Your task to perform on an android device: Search for seafood restaurants on Google Maps Image 0: 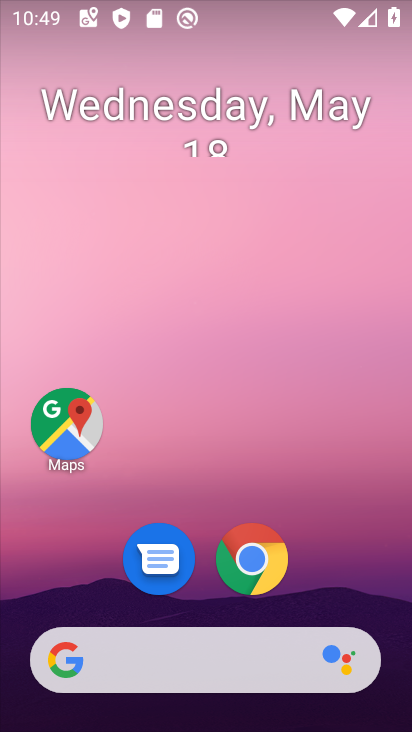
Step 0: click (63, 420)
Your task to perform on an android device: Search for seafood restaurants on Google Maps Image 1: 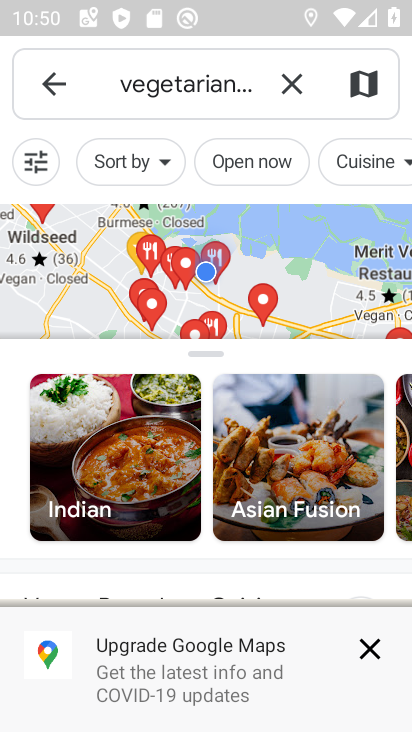
Step 1: click (302, 90)
Your task to perform on an android device: Search for seafood restaurants on Google Maps Image 2: 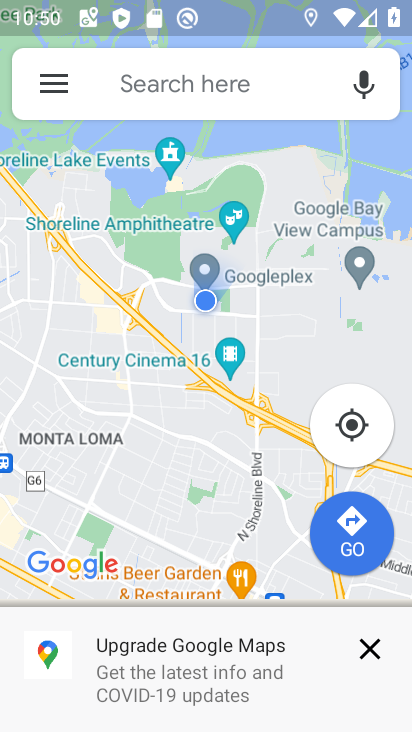
Step 2: click (178, 76)
Your task to perform on an android device: Search for seafood restaurants on Google Maps Image 3: 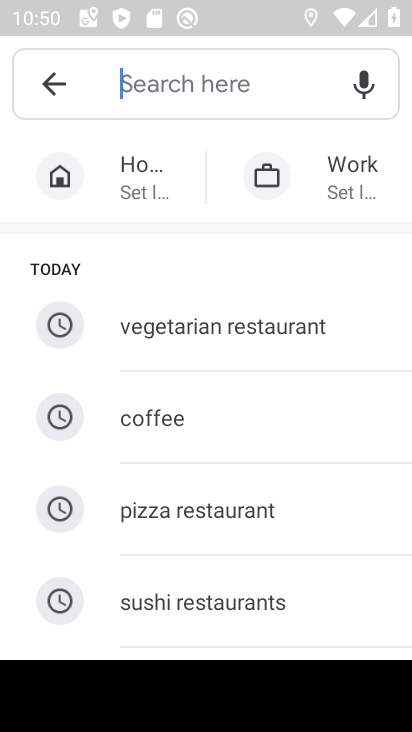
Step 3: drag from (158, 626) to (235, 202)
Your task to perform on an android device: Search for seafood restaurants on Google Maps Image 4: 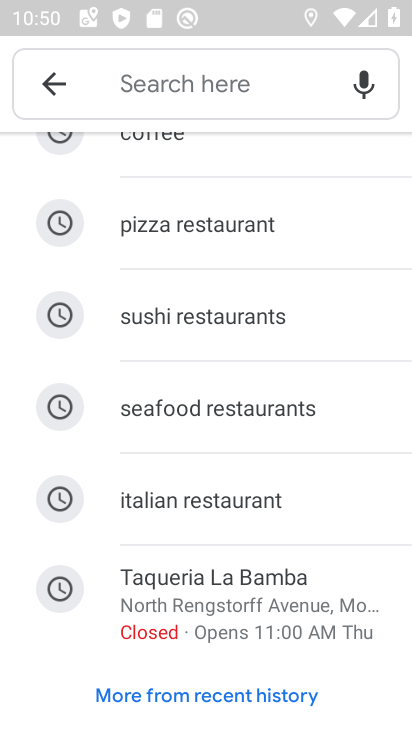
Step 4: click (238, 414)
Your task to perform on an android device: Search for seafood restaurants on Google Maps Image 5: 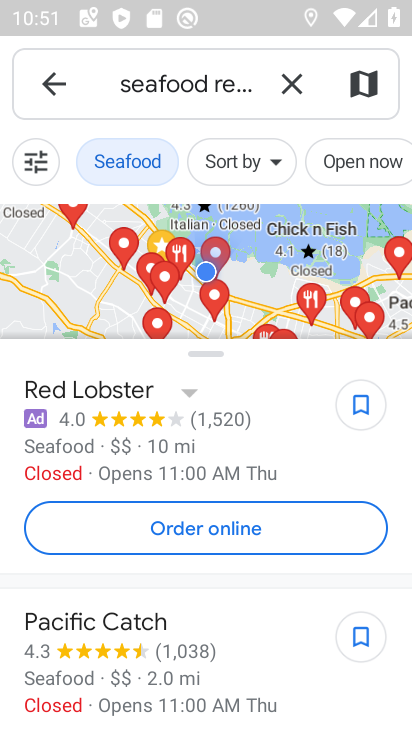
Step 5: task complete